Your task to perform on an android device: empty trash in google photos Image 0: 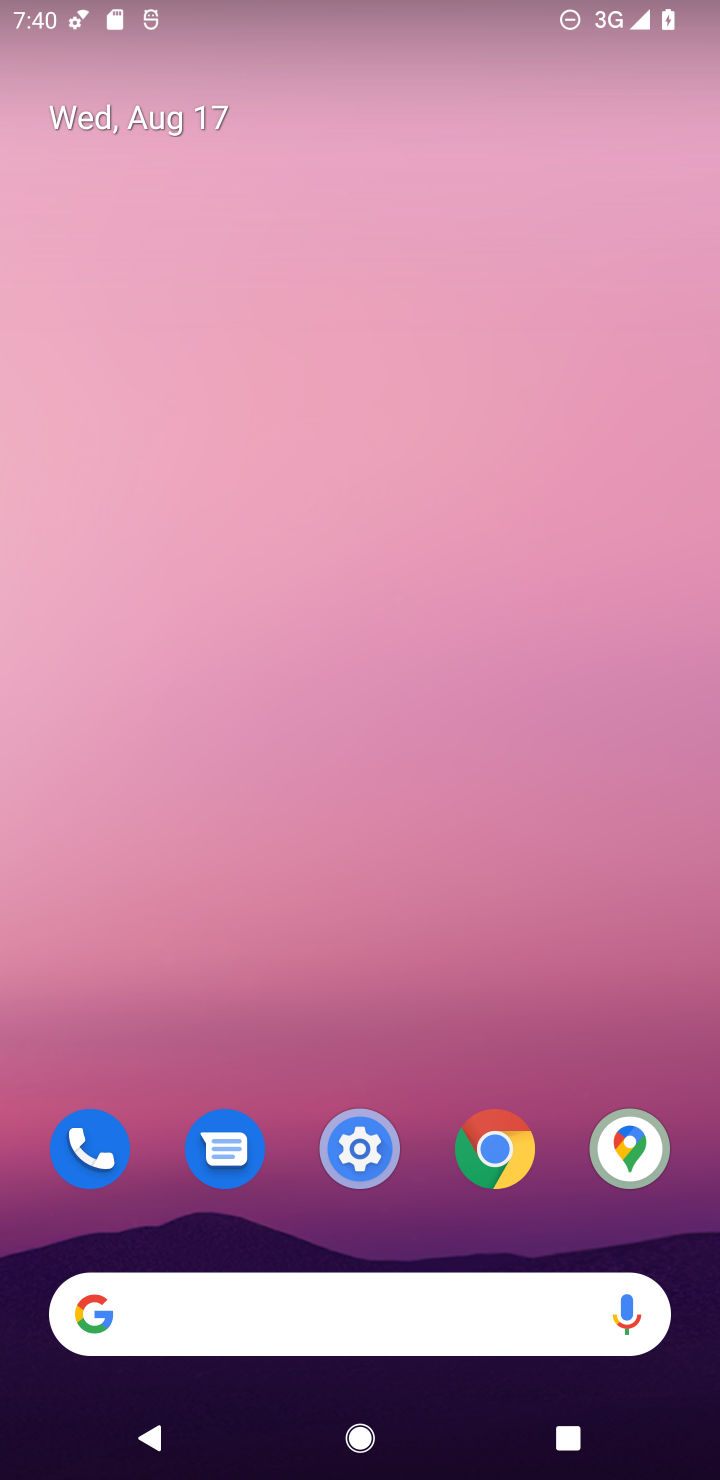
Step 0: drag from (446, 1239) to (387, 252)
Your task to perform on an android device: empty trash in google photos Image 1: 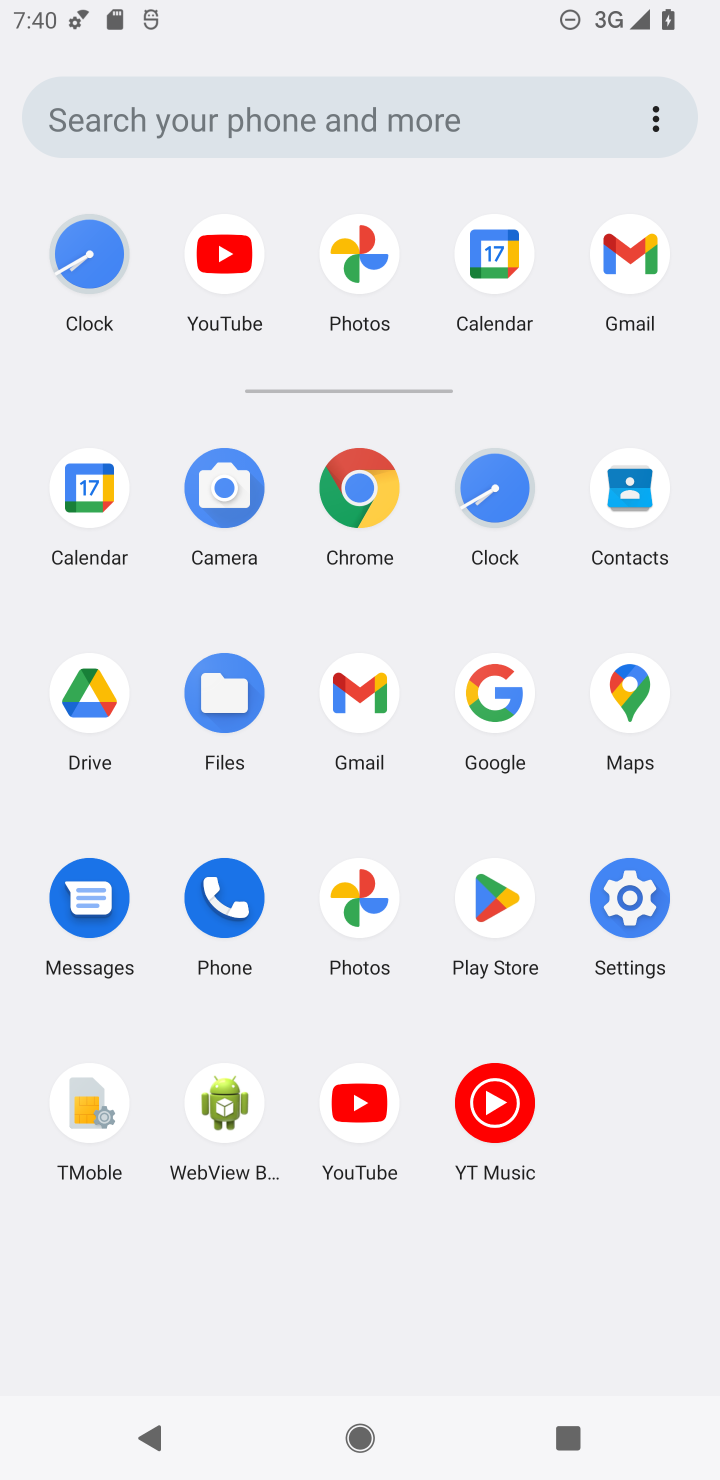
Step 1: click (357, 260)
Your task to perform on an android device: empty trash in google photos Image 2: 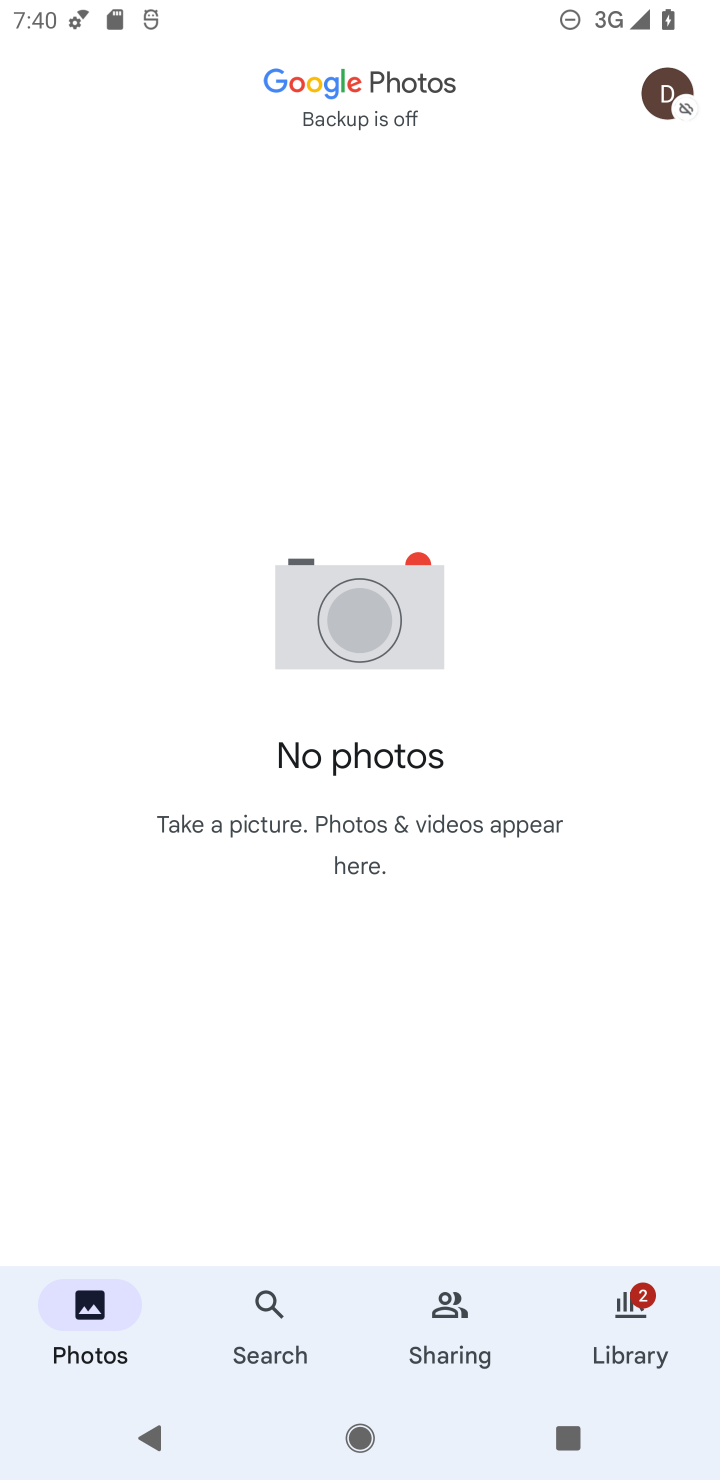
Step 2: click (662, 81)
Your task to perform on an android device: empty trash in google photos Image 3: 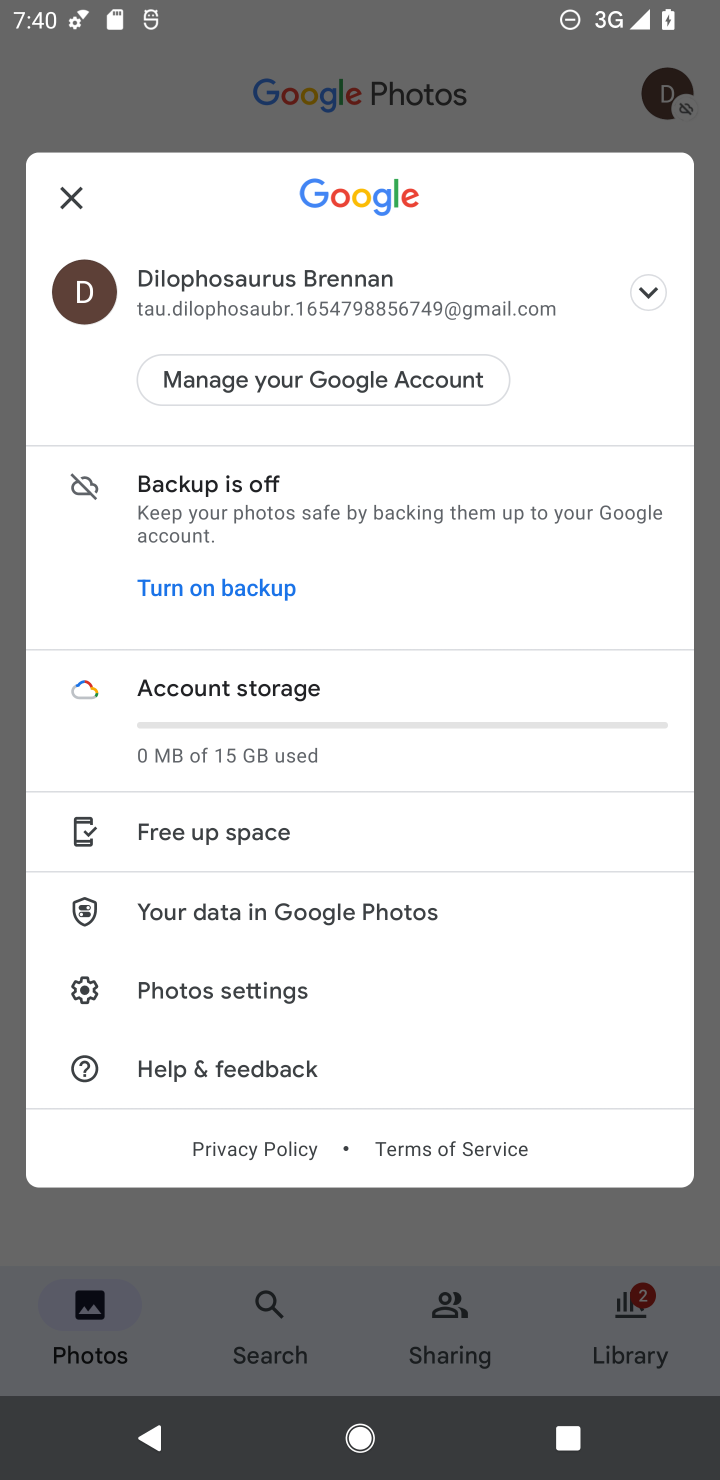
Step 3: click (649, 103)
Your task to perform on an android device: empty trash in google photos Image 4: 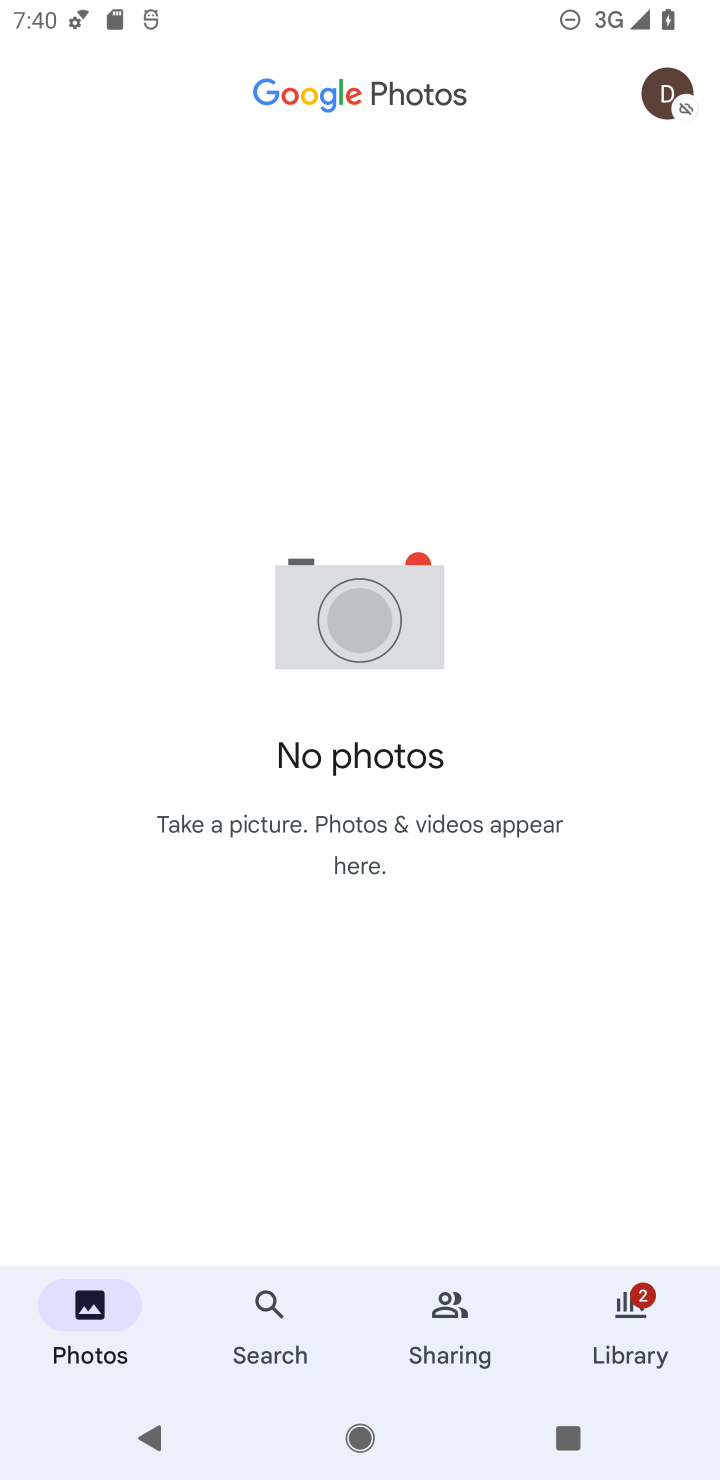
Step 4: click (627, 1306)
Your task to perform on an android device: empty trash in google photos Image 5: 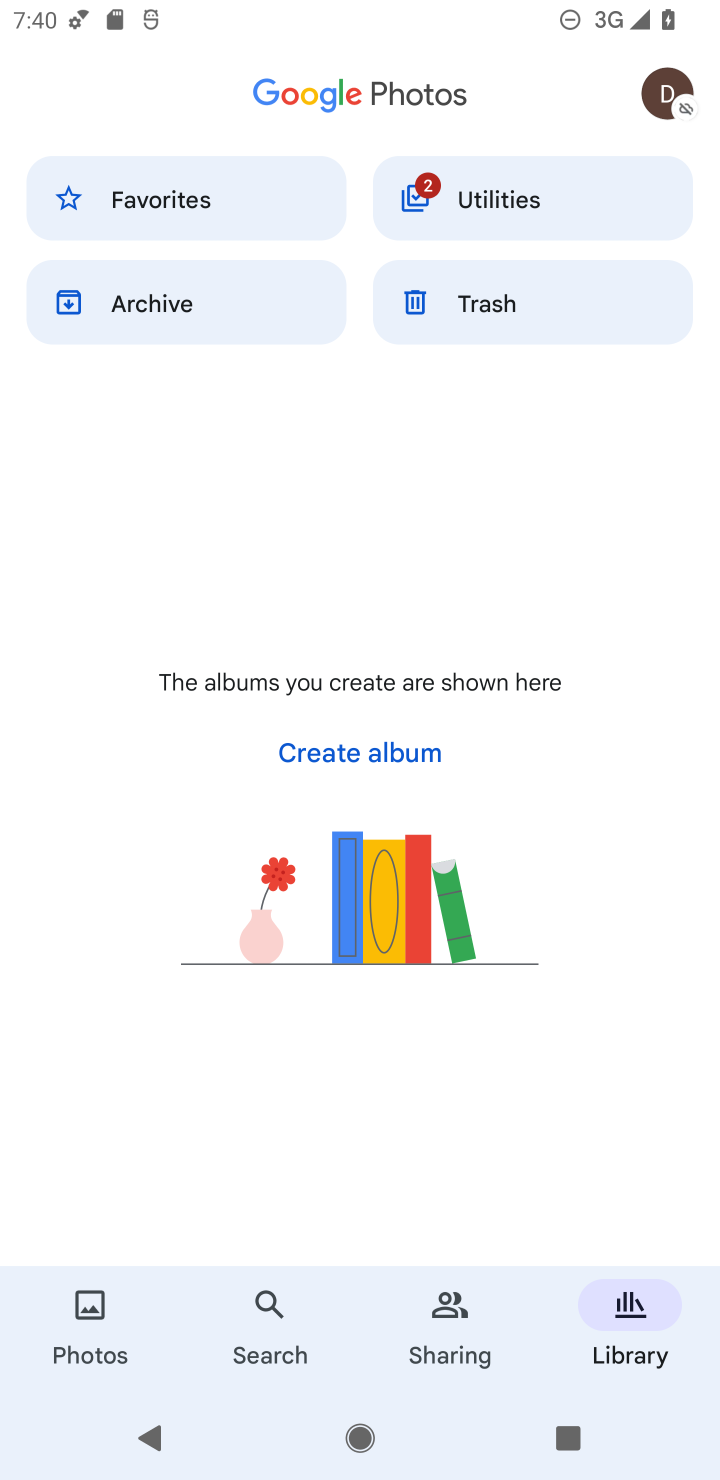
Step 5: click (489, 304)
Your task to perform on an android device: empty trash in google photos Image 6: 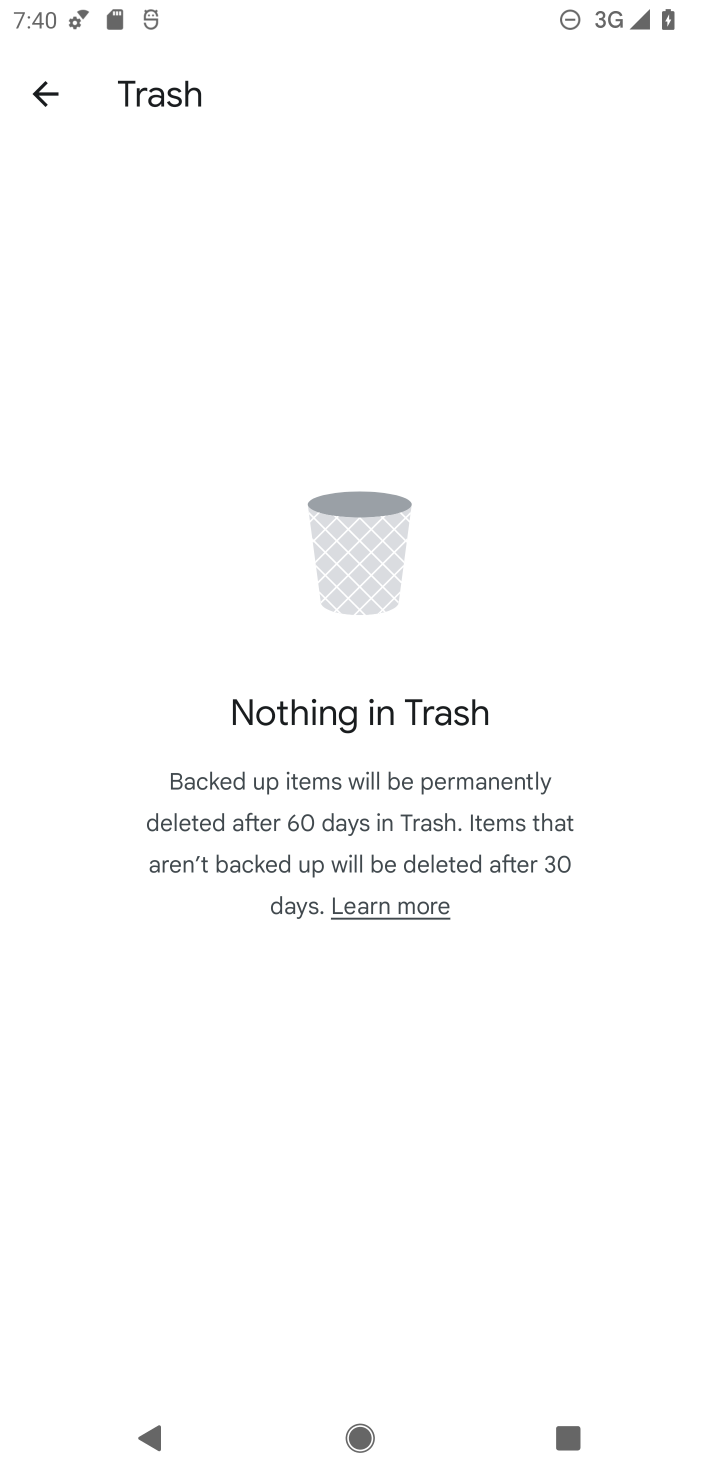
Step 6: task complete